Your task to perform on an android device: turn off translation in the chrome app Image 0: 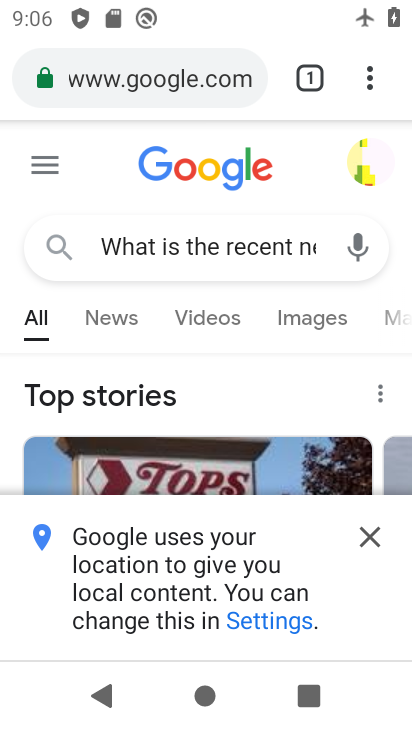
Step 0: press home button
Your task to perform on an android device: turn off translation in the chrome app Image 1: 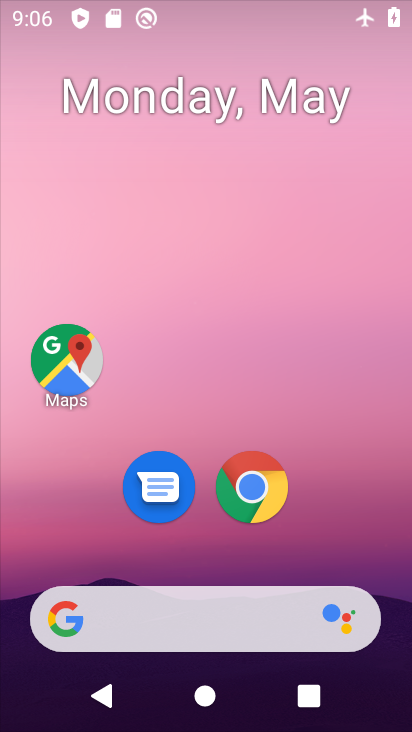
Step 1: drag from (303, 534) to (353, 199)
Your task to perform on an android device: turn off translation in the chrome app Image 2: 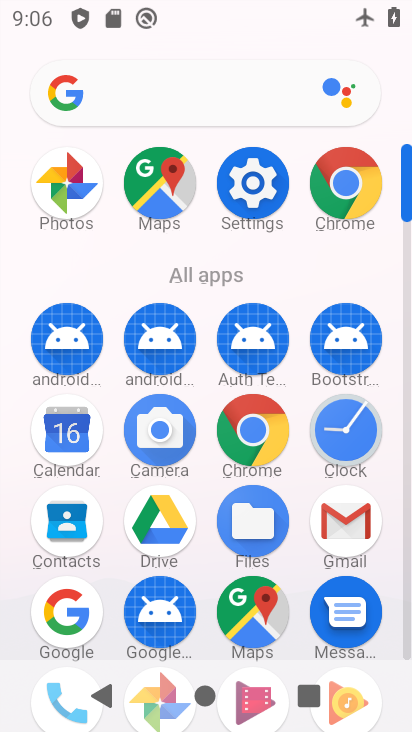
Step 2: click (251, 185)
Your task to perform on an android device: turn off translation in the chrome app Image 3: 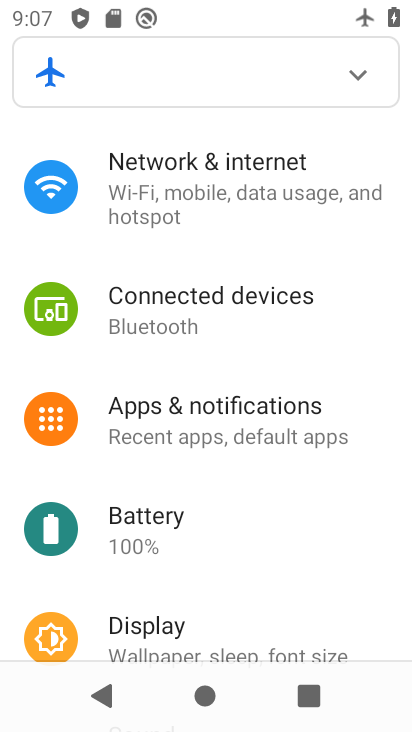
Step 3: press home button
Your task to perform on an android device: turn off translation in the chrome app Image 4: 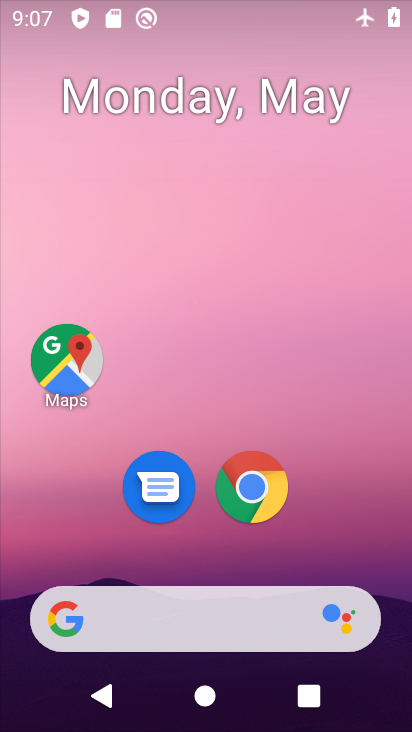
Step 4: drag from (315, 548) to (321, 252)
Your task to perform on an android device: turn off translation in the chrome app Image 5: 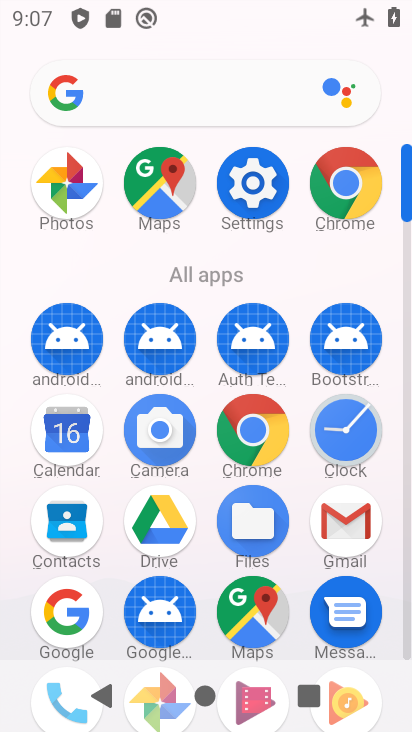
Step 5: click (348, 190)
Your task to perform on an android device: turn off translation in the chrome app Image 6: 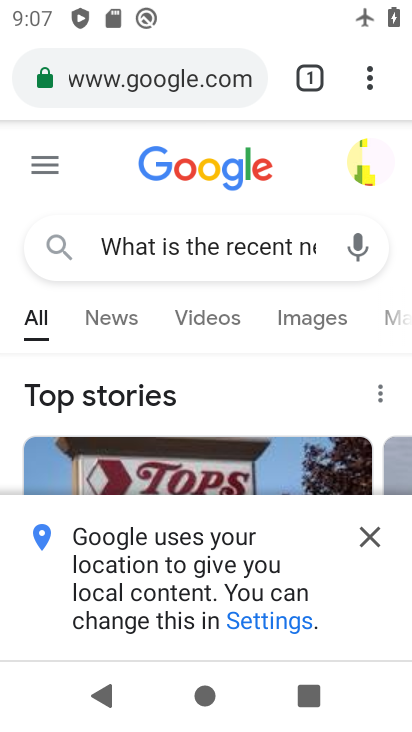
Step 6: click (359, 68)
Your task to perform on an android device: turn off translation in the chrome app Image 7: 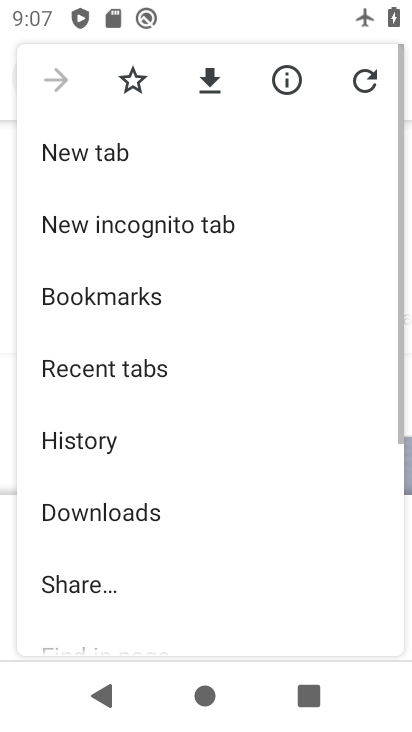
Step 7: drag from (192, 576) to (240, 192)
Your task to perform on an android device: turn off translation in the chrome app Image 8: 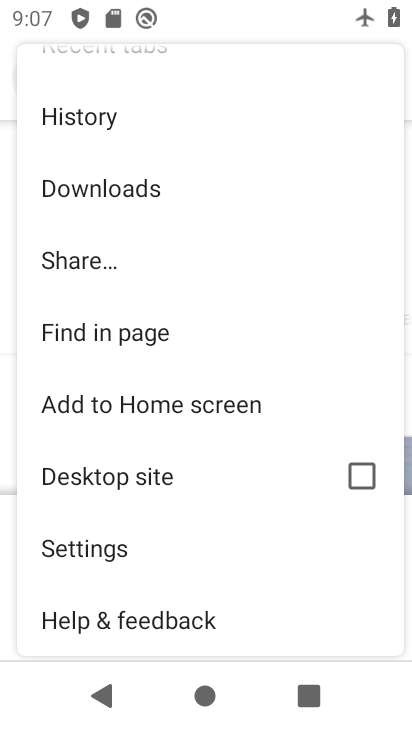
Step 8: click (156, 557)
Your task to perform on an android device: turn off translation in the chrome app Image 9: 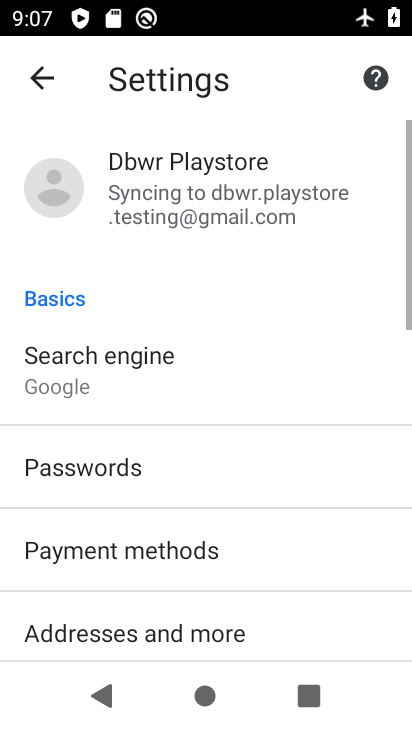
Step 9: drag from (208, 564) to (252, 263)
Your task to perform on an android device: turn off translation in the chrome app Image 10: 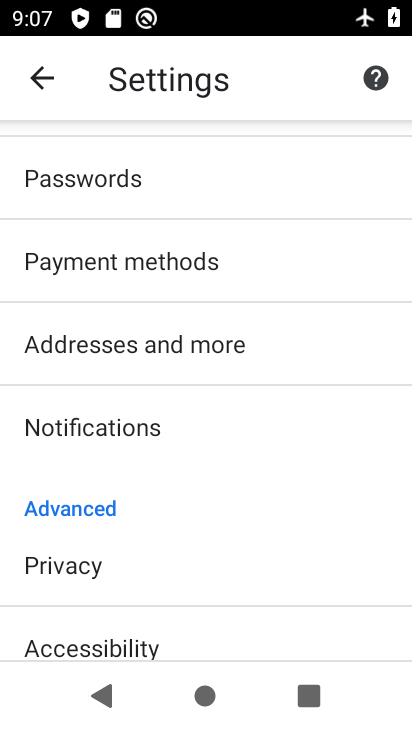
Step 10: drag from (200, 611) to (281, 295)
Your task to perform on an android device: turn off translation in the chrome app Image 11: 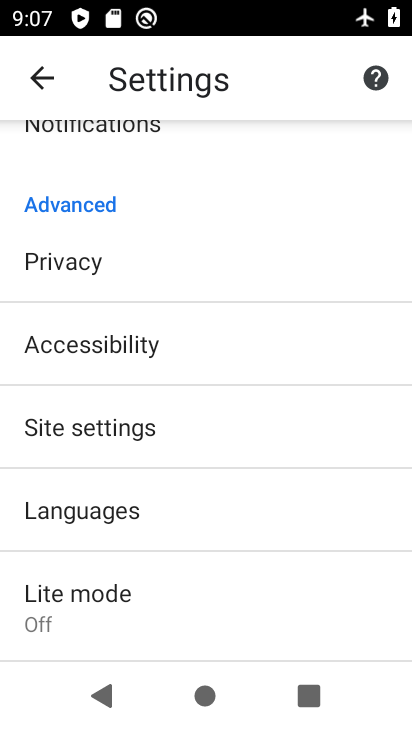
Step 11: drag from (193, 550) to (240, 389)
Your task to perform on an android device: turn off translation in the chrome app Image 12: 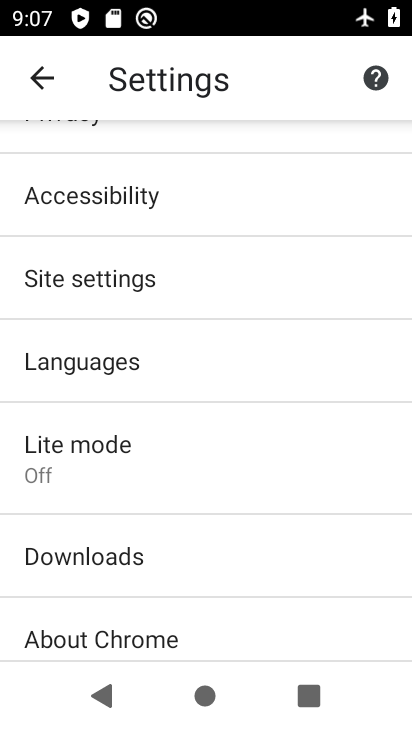
Step 12: click (194, 283)
Your task to perform on an android device: turn off translation in the chrome app Image 13: 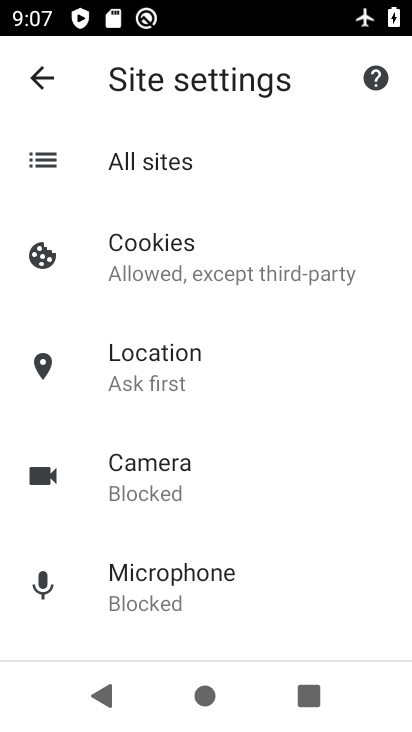
Step 13: drag from (251, 530) to (274, 232)
Your task to perform on an android device: turn off translation in the chrome app Image 14: 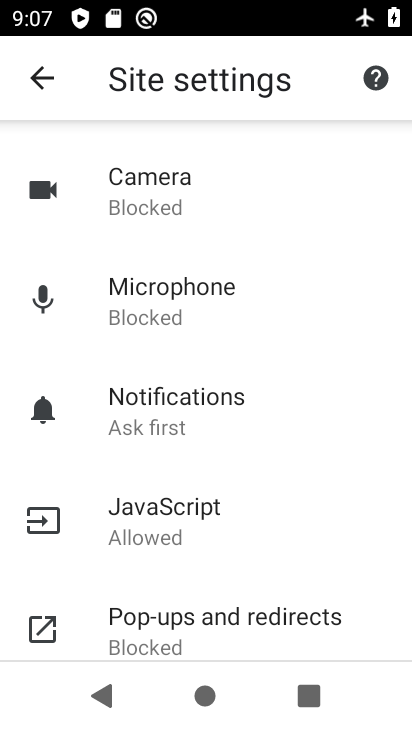
Step 14: drag from (229, 227) to (222, 585)
Your task to perform on an android device: turn off translation in the chrome app Image 15: 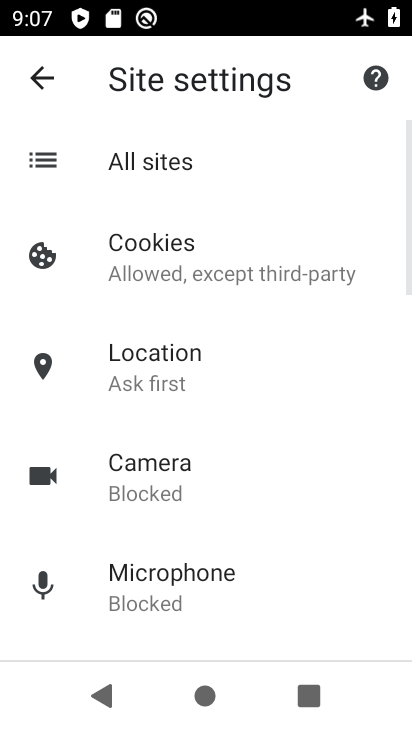
Step 15: drag from (193, 507) to (237, 295)
Your task to perform on an android device: turn off translation in the chrome app Image 16: 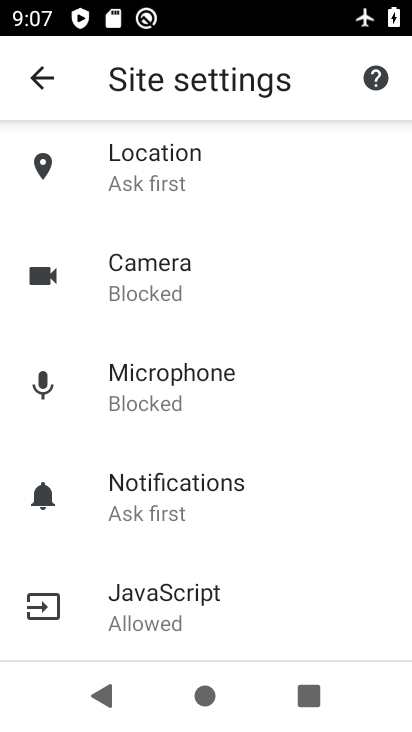
Step 16: drag from (190, 589) to (264, 252)
Your task to perform on an android device: turn off translation in the chrome app Image 17: 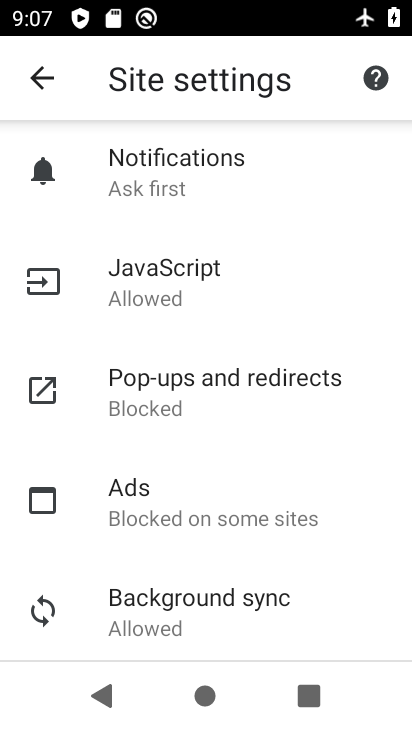
Step 17: click (31, 61)
Your task to perform on an android device: turn off translation in the chrome app Image 18: 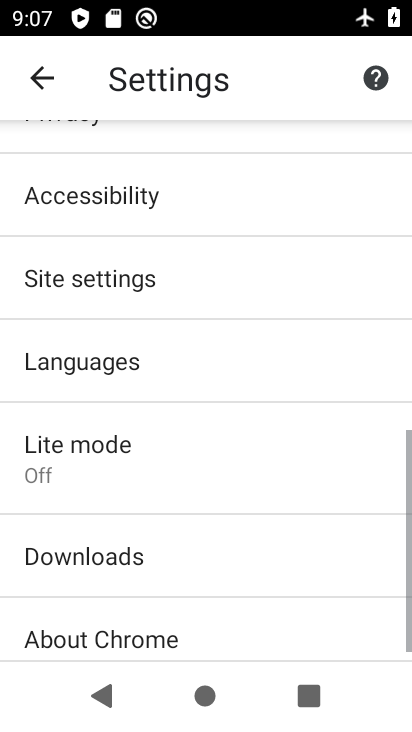
Step 18: click (168, 360)
Your task to perform on an android device: turn off translation in the chrome app Image 19: 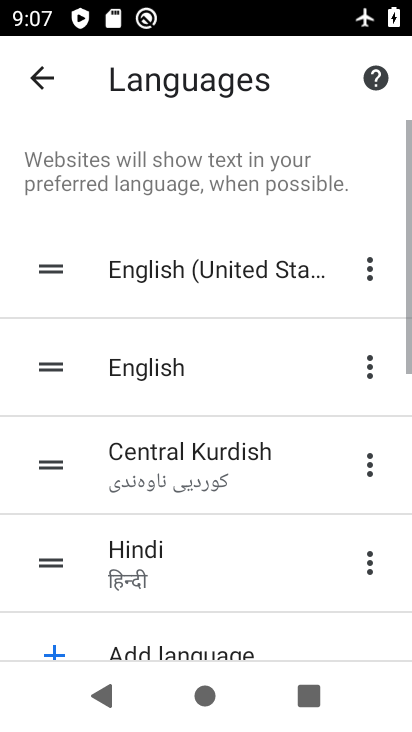
Step 19: drag from (185, 617) to (253, 231)
Your task to perform on an android device: turn off translation in the chrome app Image 20: 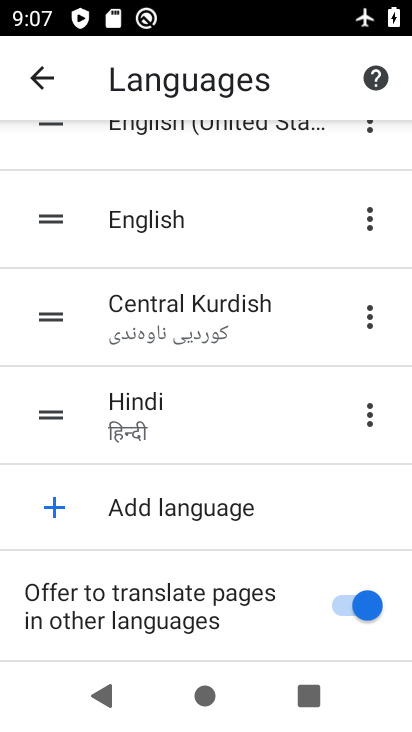
Step 20: click (357, 607)
Your task to perform on an android device: turn off translation in the chrome app Image 21: 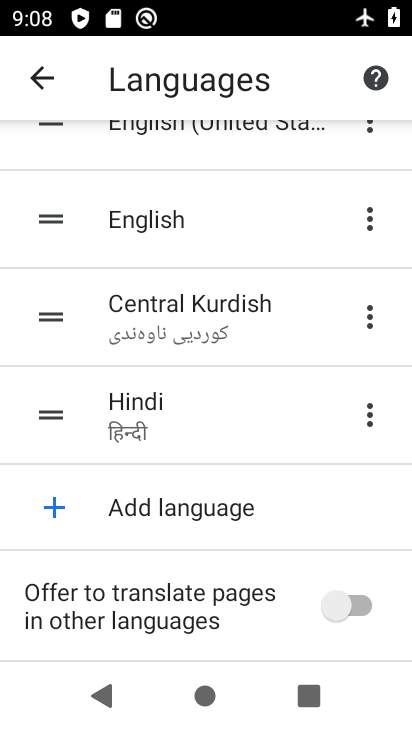
Step 21: task complete